Your task to perform on an android device: snooze an email in the gmail app Image 0: 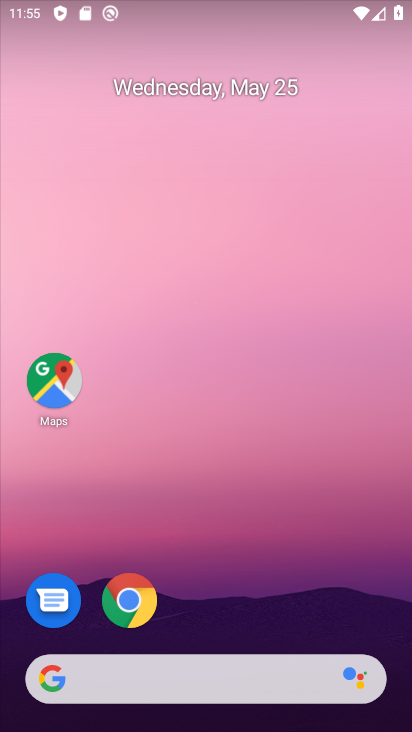
Step 0: drag from (318, 548) to (322, 66)
Your task to perform on an android device: snooze an email in the gmail app Image 1: 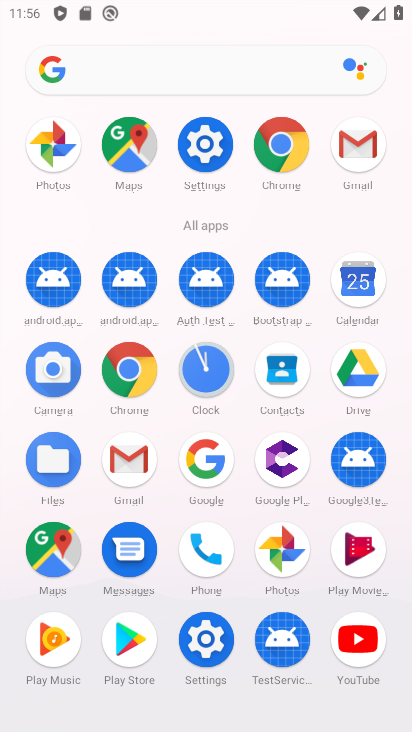
Step 1: click (120, 461)
Your task to perform on an android device: snooze an email in the gmail app Image 2: 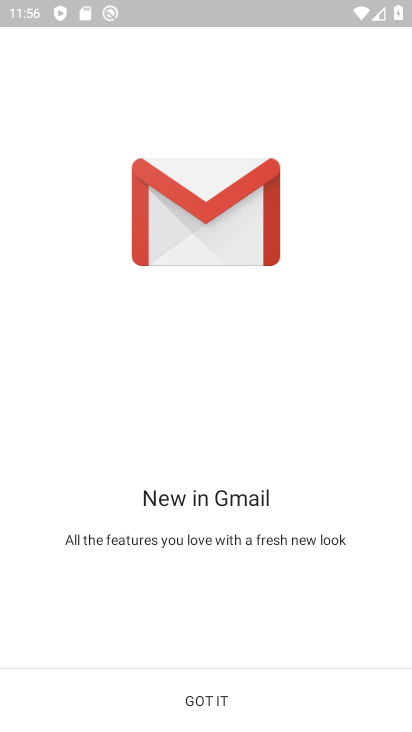
Step 2: click (210, 682)
Your task to perform on an android device: snooze an email in the gmail app Image 3: 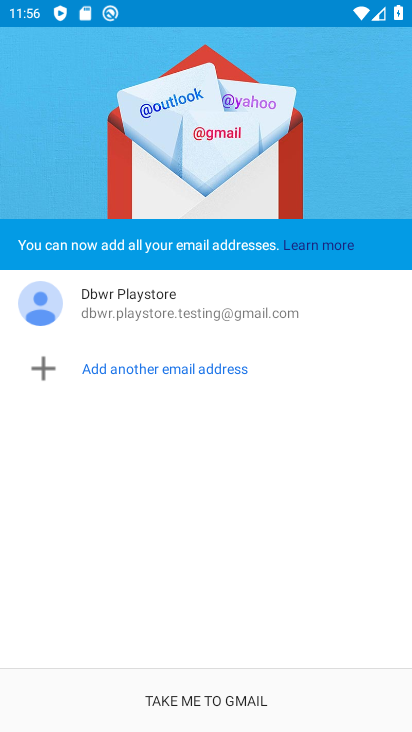
Step 3: click (214, 685)
Your task to perform on an android device: snooze an email in the gmail app Image 4: 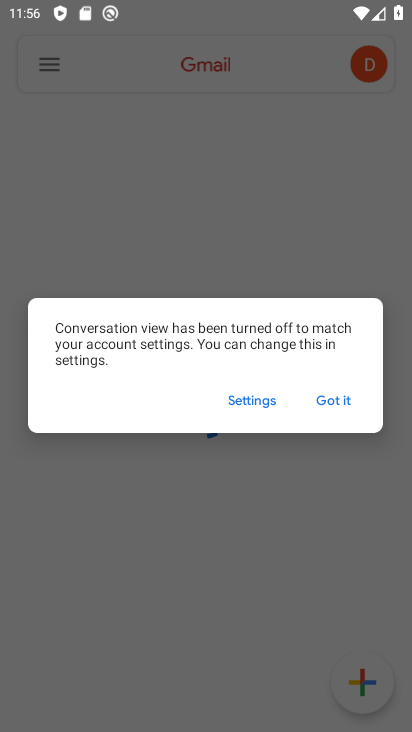
Step 4: click (340, 407)
Your task to perform on an android device: snooze an email in the gmail app Image 5: 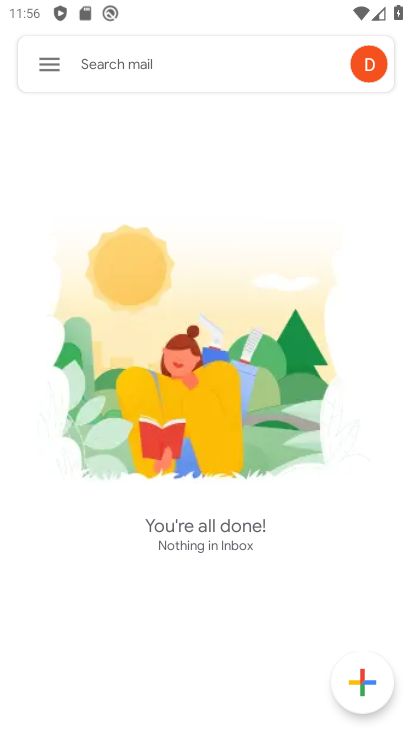
Step 5: click (42, 55)
Your task to perform on an android device: snooze an email in the gmail app Image 6: 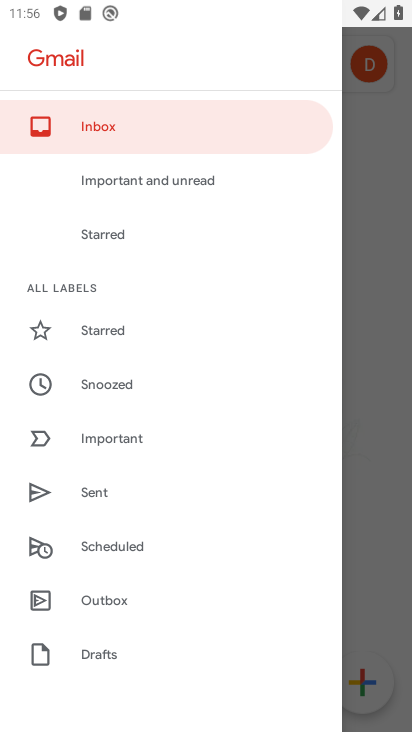
Step 6: click (103, 380)
Your task to perform on an android device: snooze an email in the gmail app Image 7: 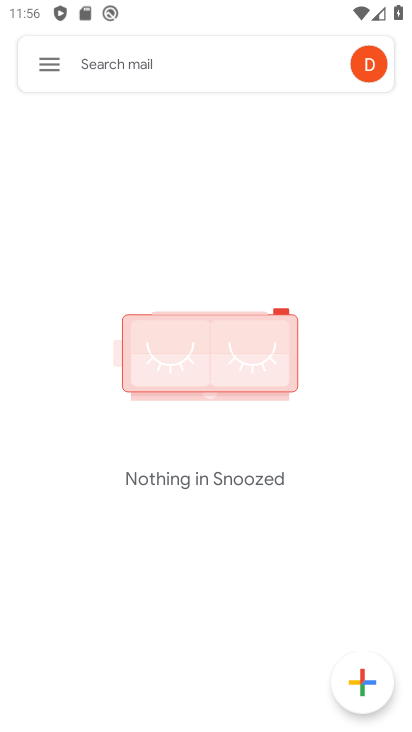
Step 7: click (51, 70)
Your task to perform on an android device: snooze an email in the gmail app Image 8: 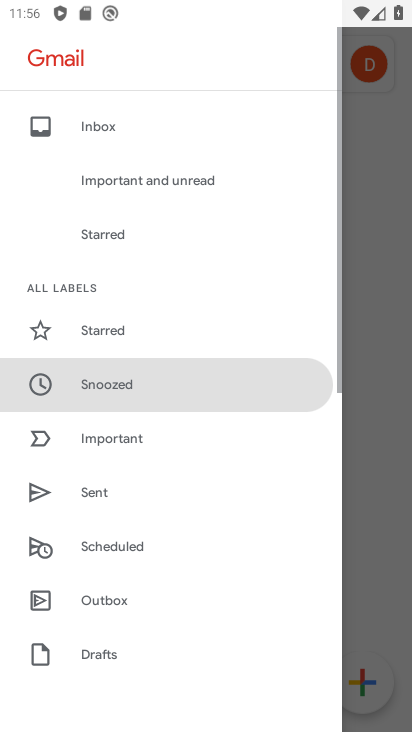
Step 8: drag from (169, 665) to (241, 270)
Your task to perform on an android device: snooze an email in the gmail app Image 9: 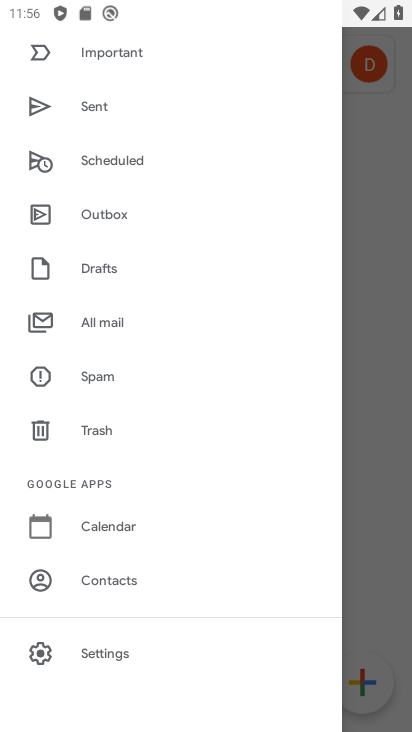
Step 9: click (100, 327)
Your task to perform on an android device: snooze an email in the gmail app Image 10: 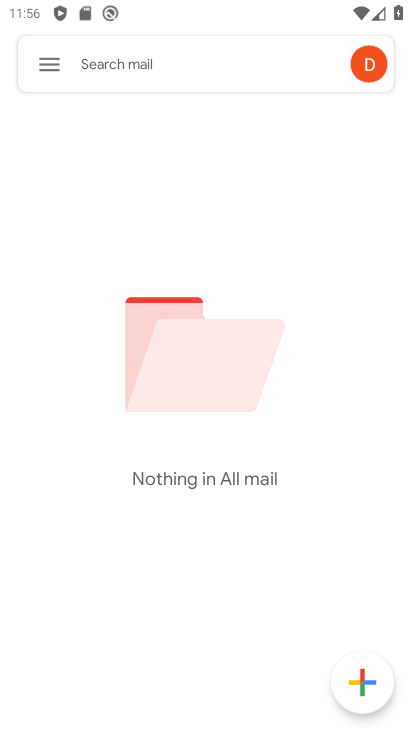
Step 10: task complete